Your task to perform on an android device: turn on data saver in the chrome app Image 0: 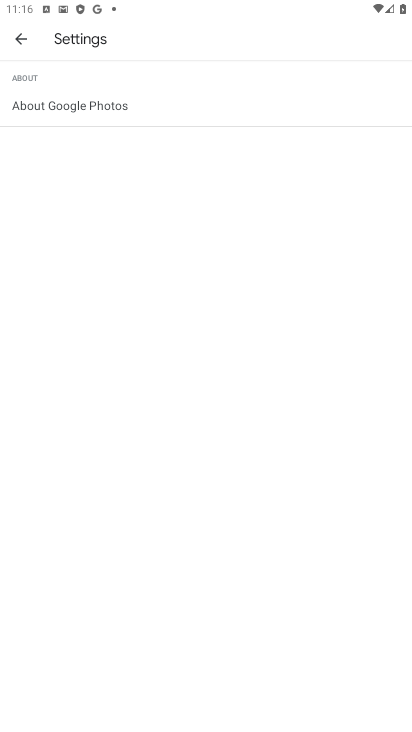
Step 0: press back button
Your task to perform on an android device: turn on data saver in the chrome app Image 1: 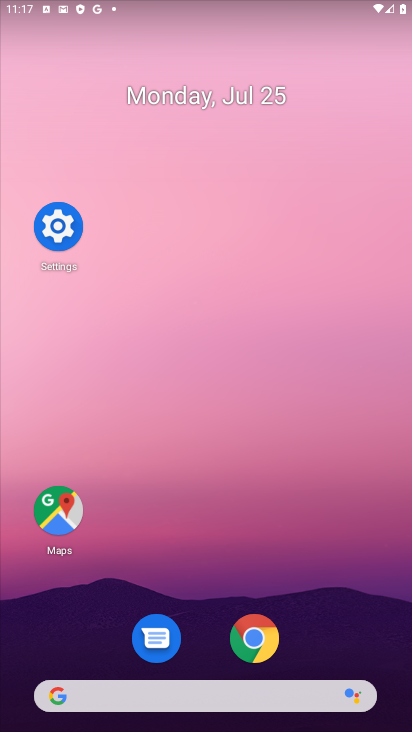
Step 1: click (253, 650)
Your task to perform on an android device: turn on data saver in the chrome app Image 2: 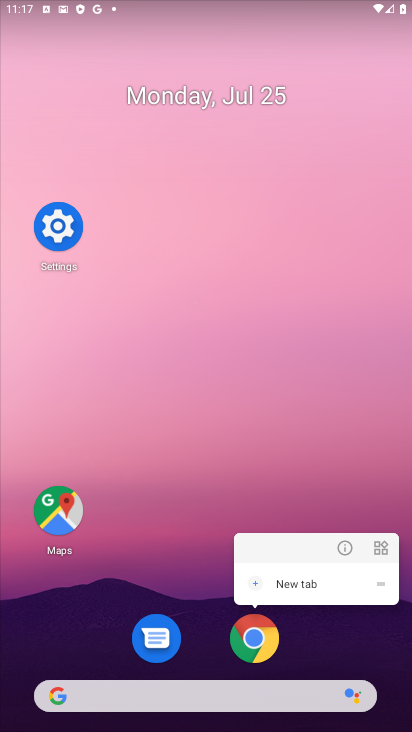
Step 2: click (273, 658)
Your task to perform on an android device: turn on data saver in the chrome app Image 3: 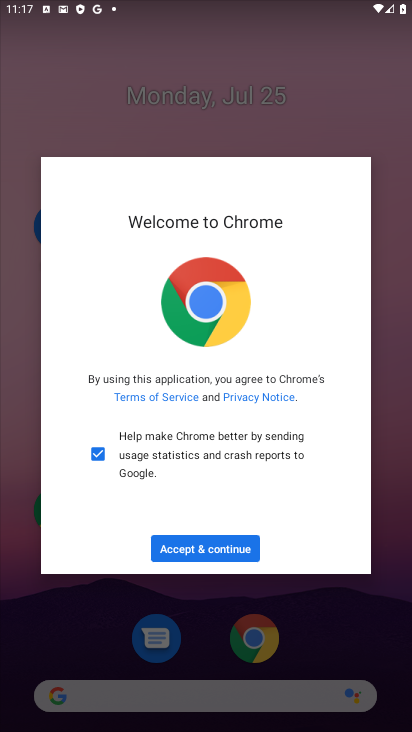
Step 3: click (219, 556)
Your task to perform on an android device: turn on data saver in the chrome app Image 4: 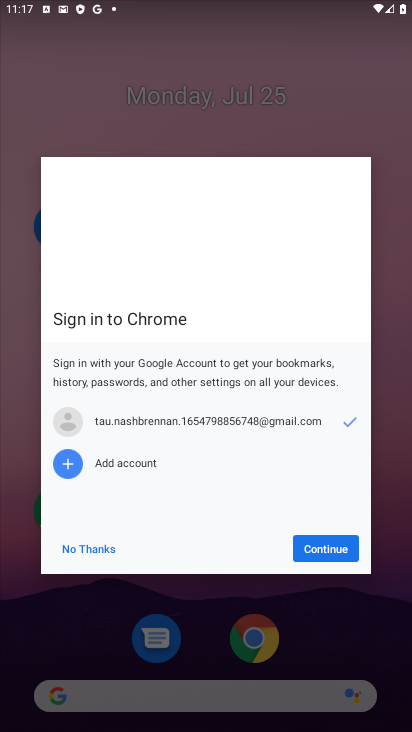
Step 4: click (347, 546)
Your task to perform on an android device: turn on data saver in the chrome app Image 5: 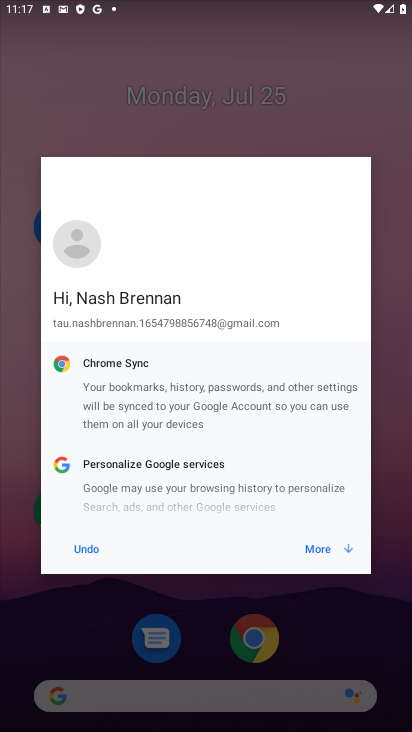
Step 5: click (347, 546)
Your task to perform on an android device: turn on data saver in the chrome app Image 6: 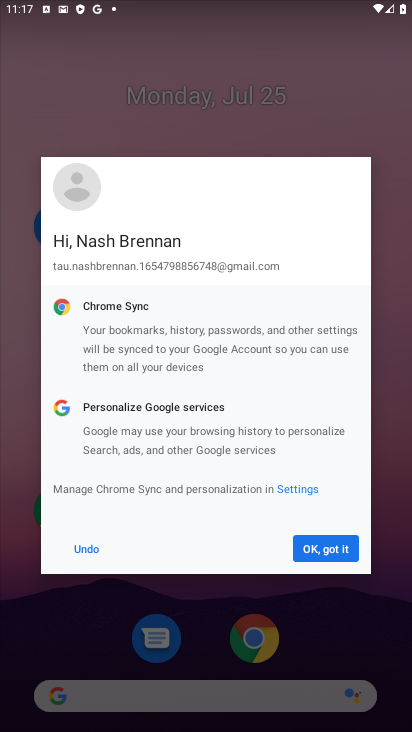
Step 6: click (337, 554)
Your task to perform on an android device: turn on data saver in the chrome app Image 7: 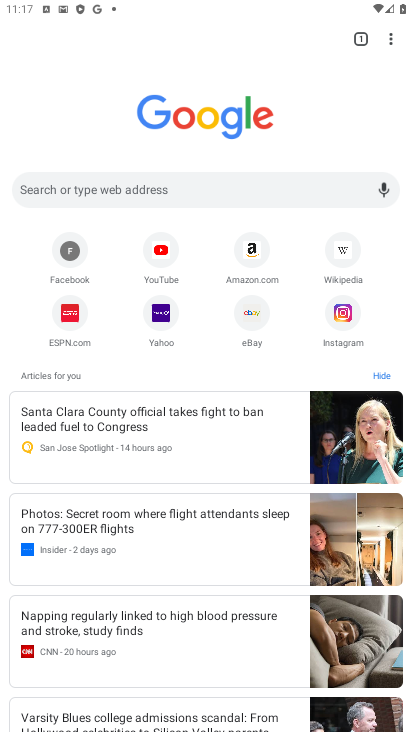
Step 7: click (390, 46)
Your task to perform on an android device: turn on data saver in the chrome app Image 8: 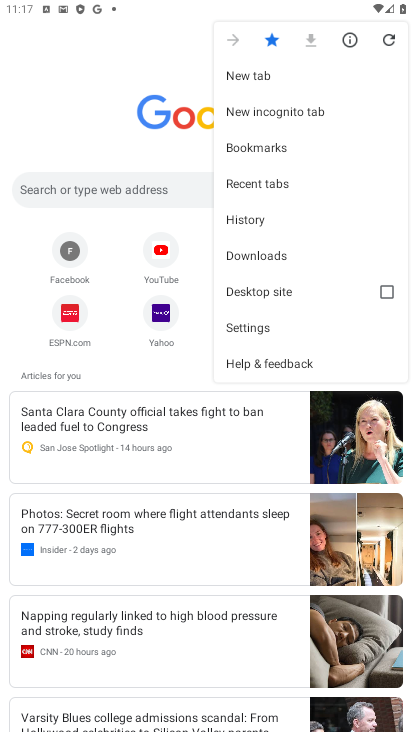
Step 8: click (256, 318)
Your task to perform on an android device: turn on data saver in the chrome app Image 9: 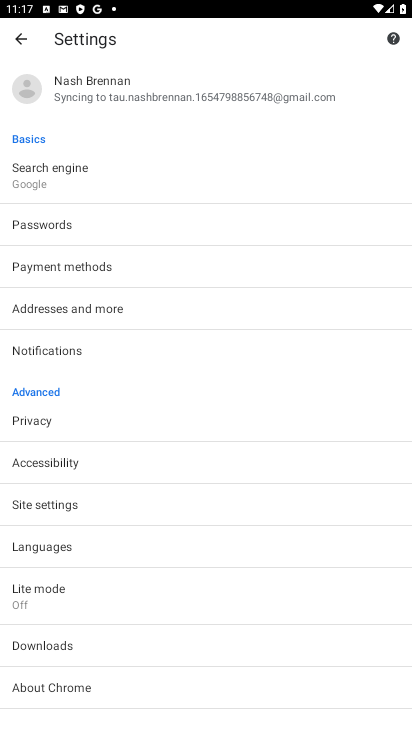
Step 9: click (77, 597)
Your task to perform on an android device: turn on data saver in the chrome app Image 10: 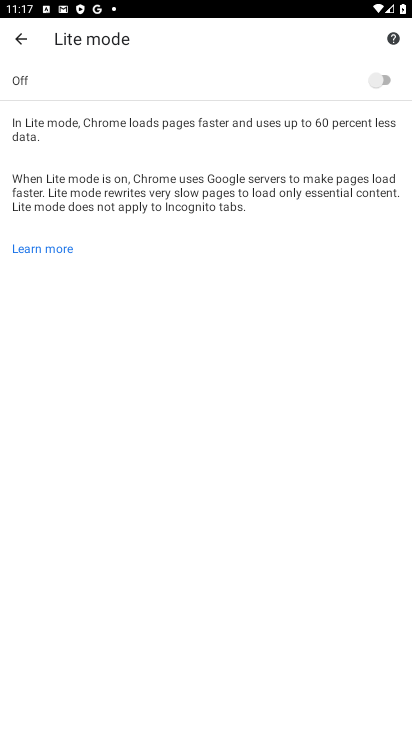
Step 10: click (382, 71)
Your task to perform on an android device: turn on data saver in the chrome app Image 11: 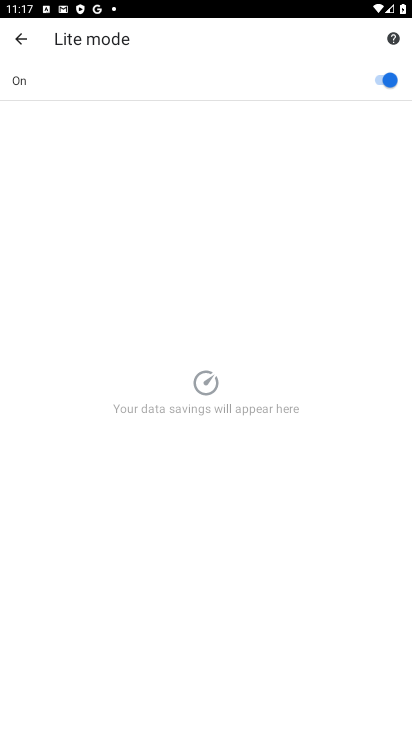
Step 11: task complete